Your task to perform on an android device: open app "Pluto TV - Live TV and Movies" (install if not already installed) Image 0: 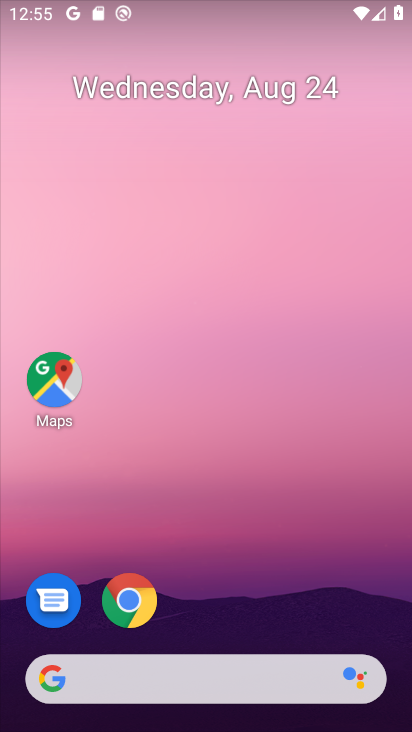
Step 0: drag from (195, 649) to (164, 51)
Your task to perform on an android device: open app "Pluto TV - Live TV and Movies" (install if not already installed) Image 1: 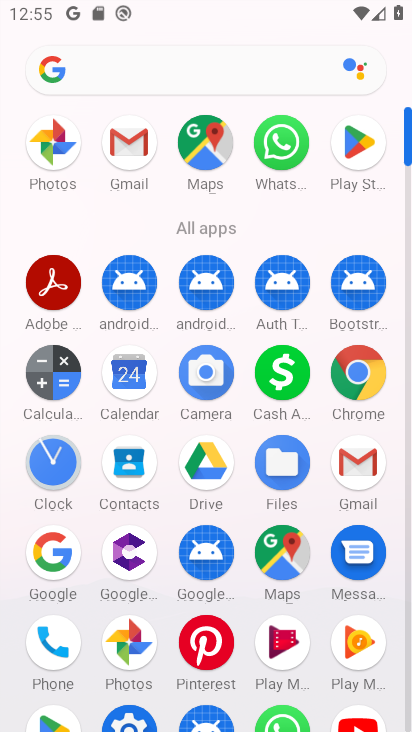
Step 1: click (360, 141)
Your task to perform on an android device: open app "Pluto TV - Live TV and Movies" (install if not already installed) Image 2: 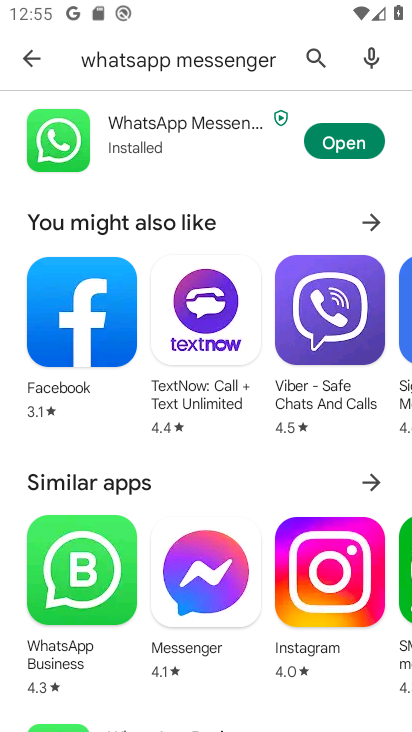
Step 2: click (311, 50)
Your task to perform on an android device: open app "Pluto TV - Live TV and Movies" (install if not already installed) Image 3: 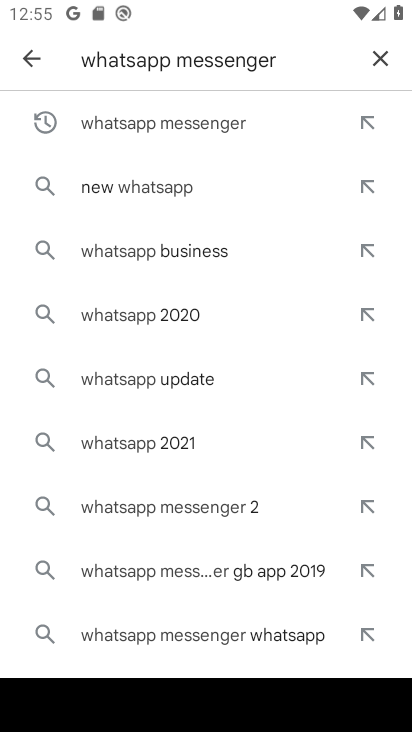
Step 3: click (379, 58)
Your task to perform on an android device: open app "Pluto TV - Live TV and Movies" (install if not already installed) Image 4: 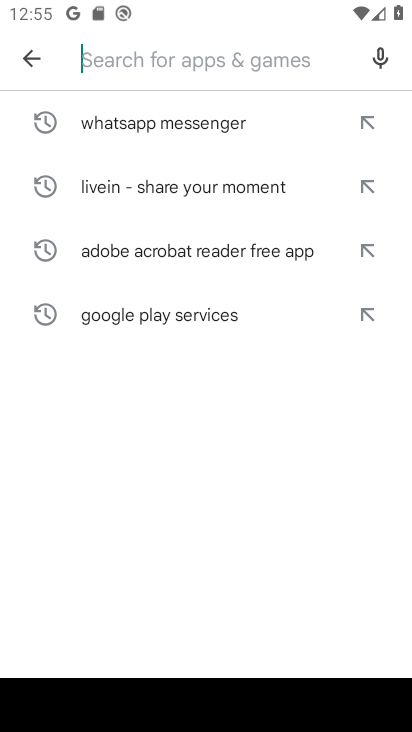
Step 4: type "Pluto TV - Live TV and Movies"
Your task to perform on an android device: open app "Pluto TV - Live TV and Movies" (install if not already installed) Image 5: 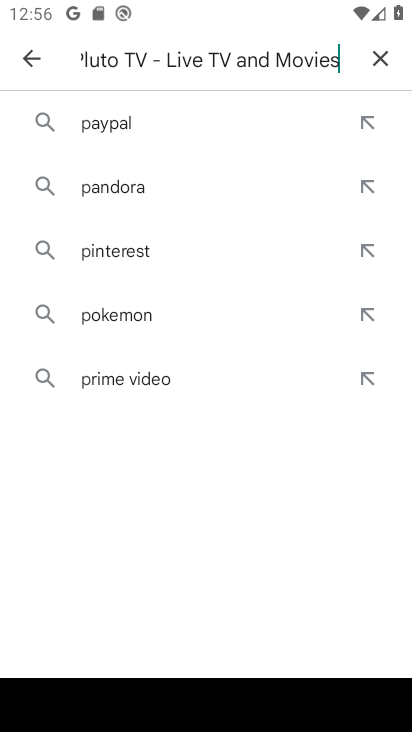
Step 5: type ""
Your task to perform on an android device: open app "Pluto TV - Live TV and Movies" (install if not already installed) Image 6: 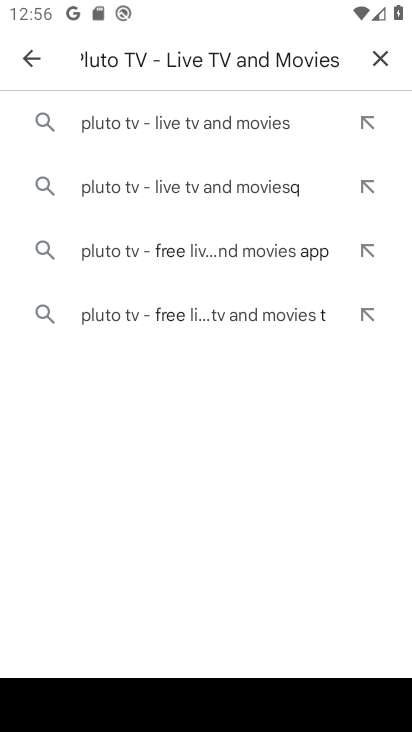
Step 6: click (245, 120)
Your task to perform on an android device: open app "Pluto TV - Live TV and Movies" (install if not already installed) Image 7: 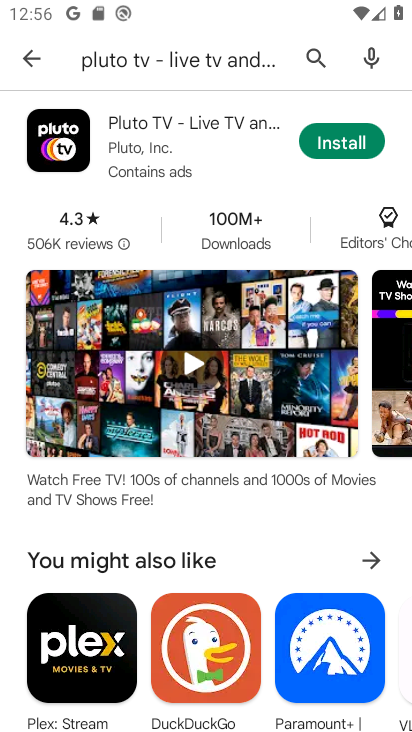
Step 7: click (346, 148)
Your task to perform on an android device: open app "Pluto TV - Live TV and Movies" (install if not already installed) Image 8: 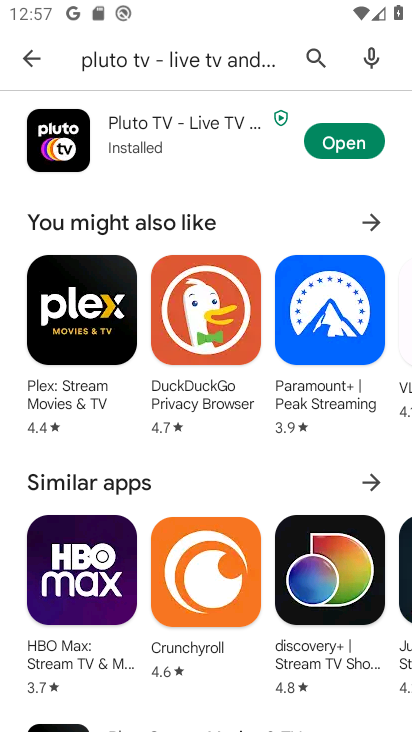
Step 8: click (344, 143)
Your task to perform on an android device: open app "Pluto TV - Live TV and Movies" (install if not already installed) Image 9: 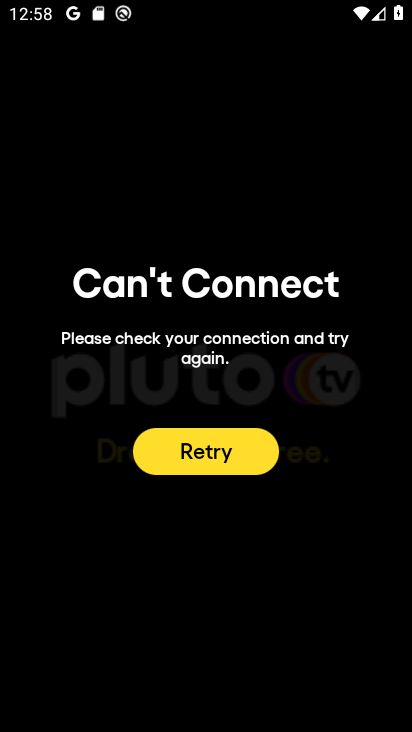
Step 9: task complete